Your task to perform on an android device: change notifications settings Image 0: 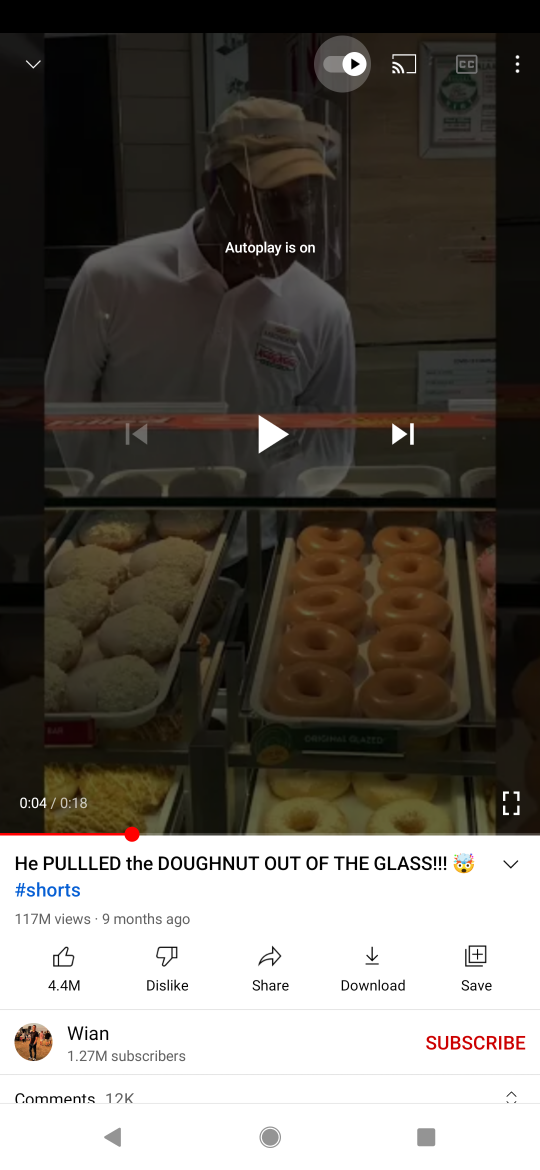
Step 0: press home button
Your task to perform on an android device: change notifications settings Image 1: 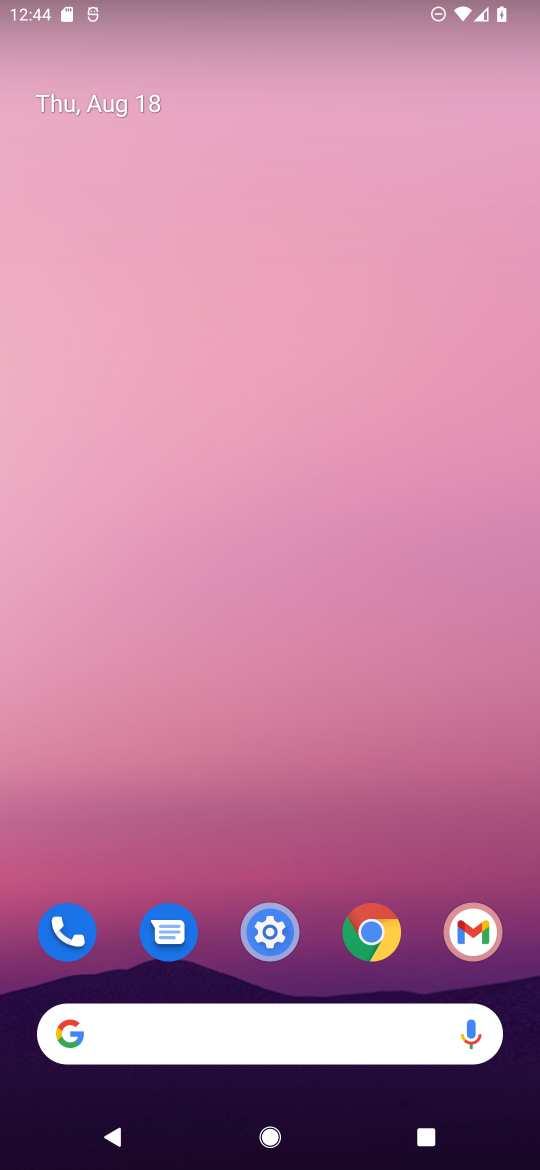
Step 1: click (271, 928)
Your task to perform on an android device: change notifications settings Image 2: 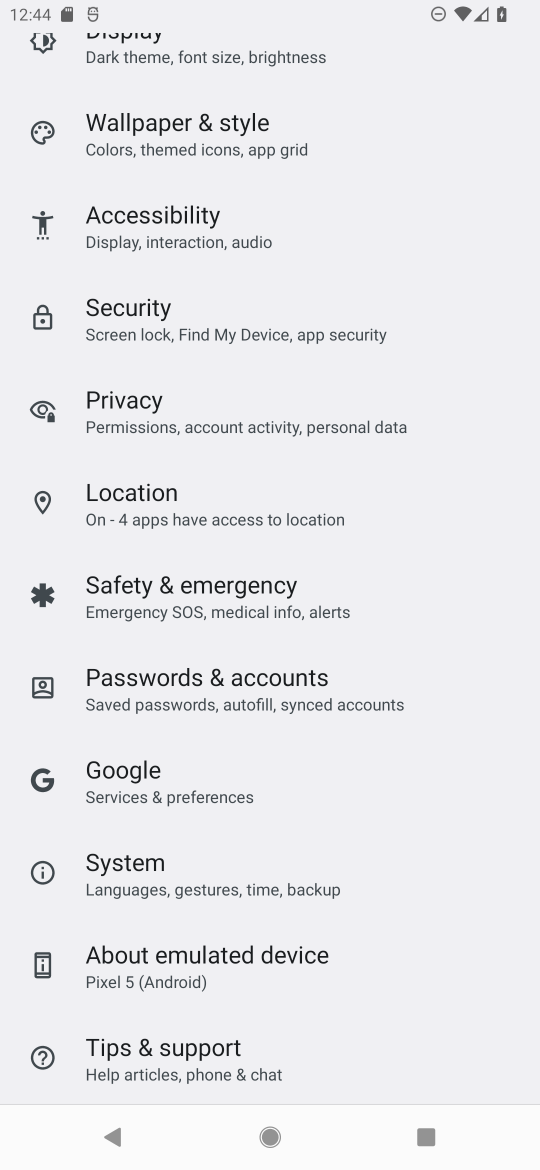
Step 2: drag from (320, 235) to (323, 789)
Your task to perform on an android device: change notifications settings Image 3: 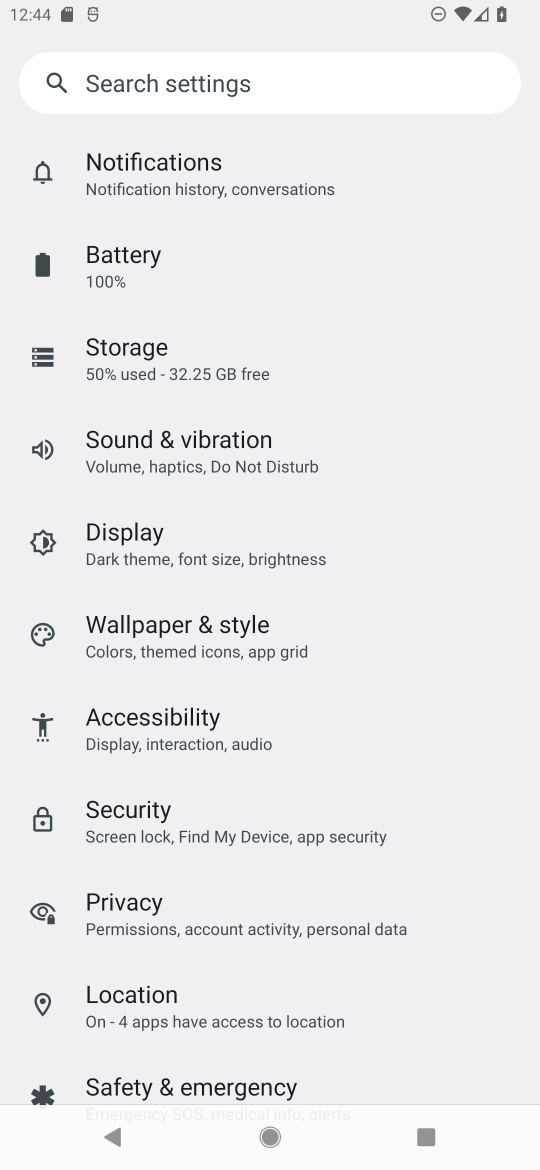
Step 3: click (173, 156)
Your task to perform on an android device: change notifications settings Image 4: 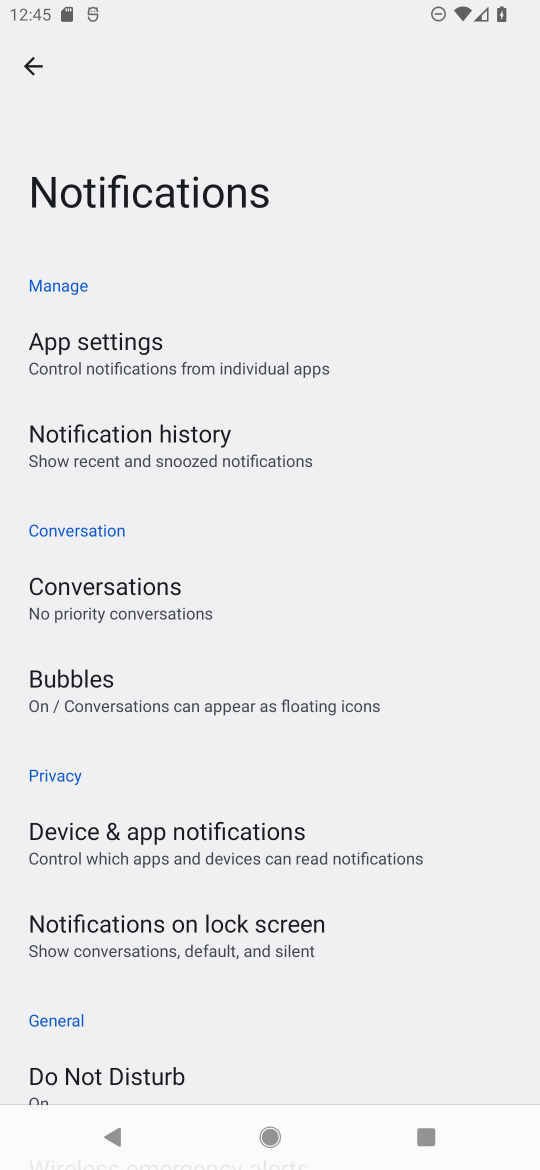
Step 4: click (125, 341)
Your task to perform on an android device: change notifications settings Image 5: 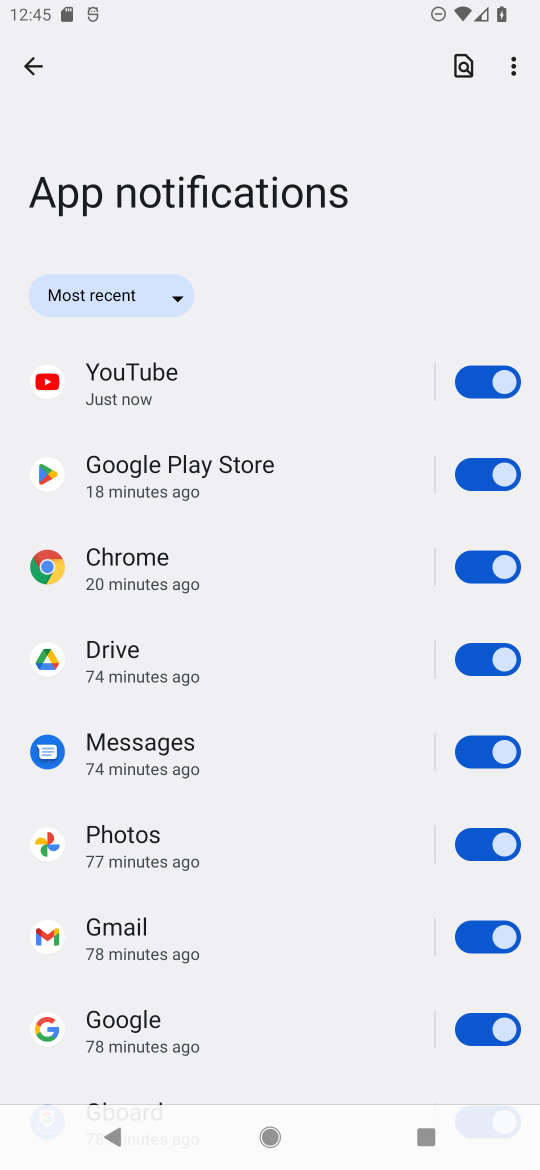
Step 5: click (165, 296)
Your task to perform on an android device: change notifications settings Image 6: 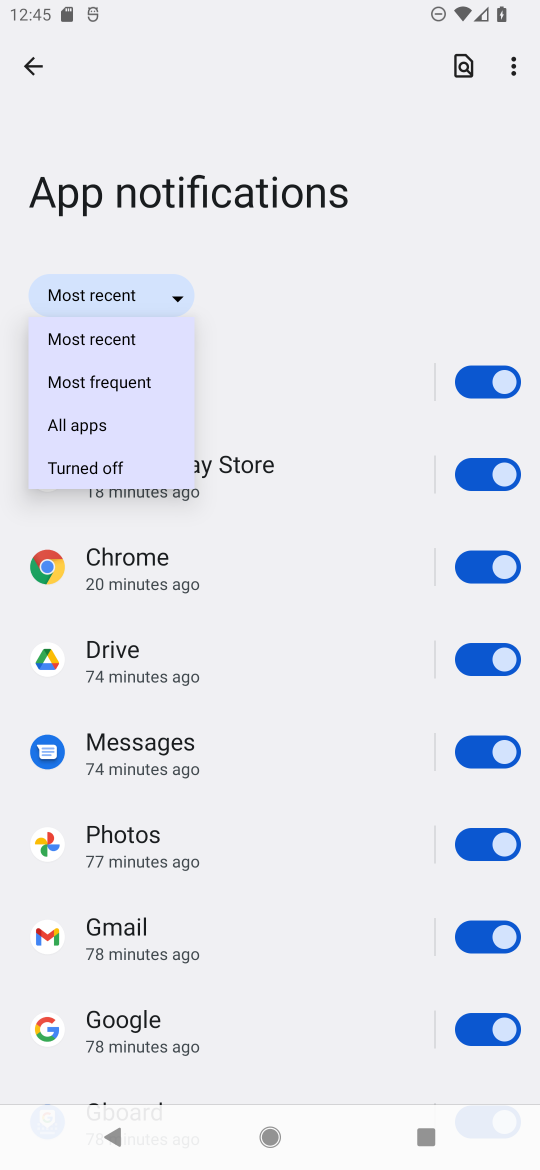
Step 6: click (97, 457)
Your task to perform on an android device: change notifications settings Image 7: 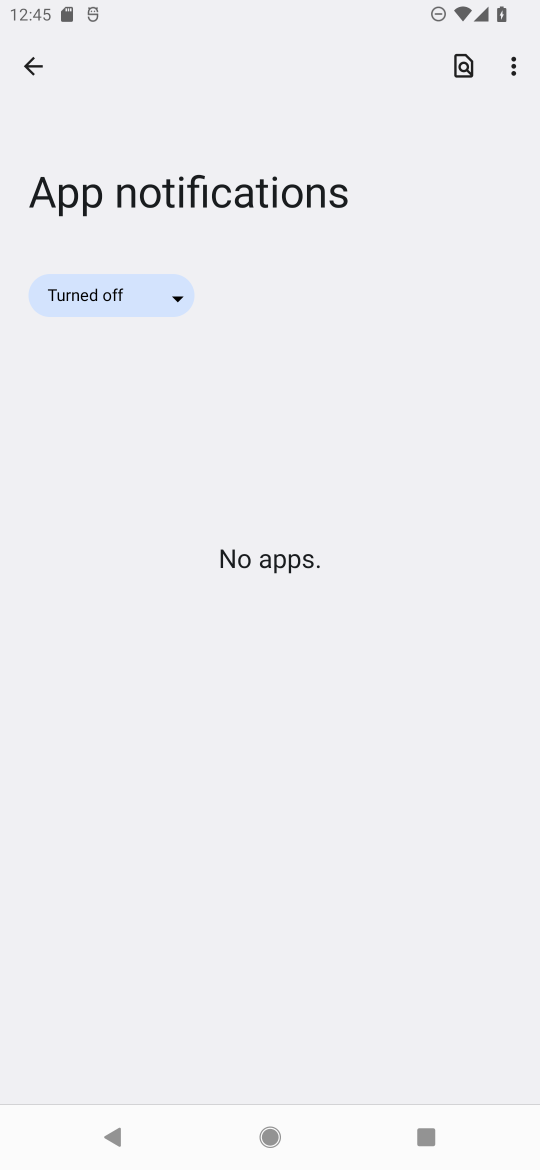
Step 7: task complete